Your task to perform on an android device: Search for Italian restaurants on Maps Image 0: 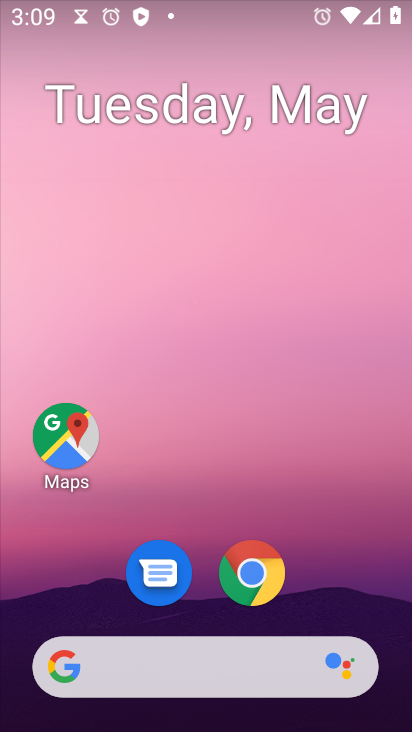
Step 0: drag from (310, 513) to (233, 33)
Your task to perform on an android device: Search for Italian restaurants on Maps Image 1: 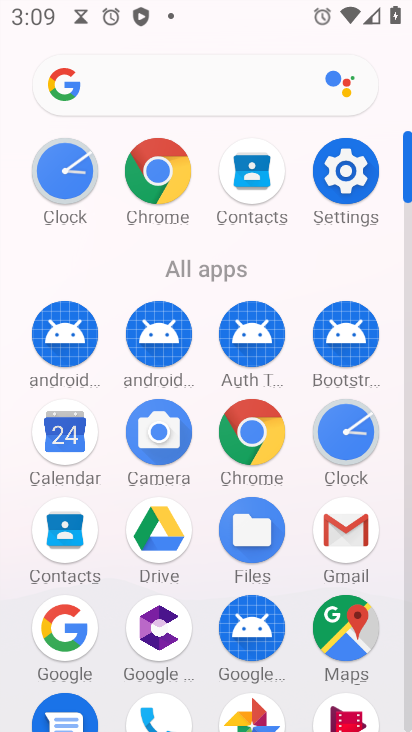
Step 1: drag from (4, 653) to (24, 193)
Your task to perform on an android device: Search for Italian restaurants on Maps Image 2: 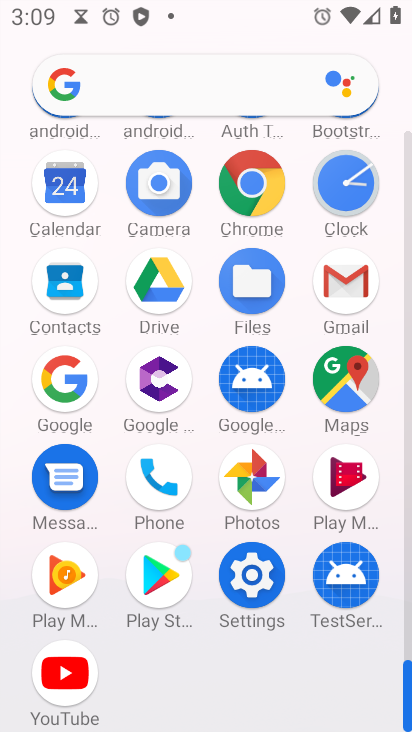
Step 2: click (342, 379)
Your task to perform on an android device: Search for Italian restaurants on Maps Image 3: 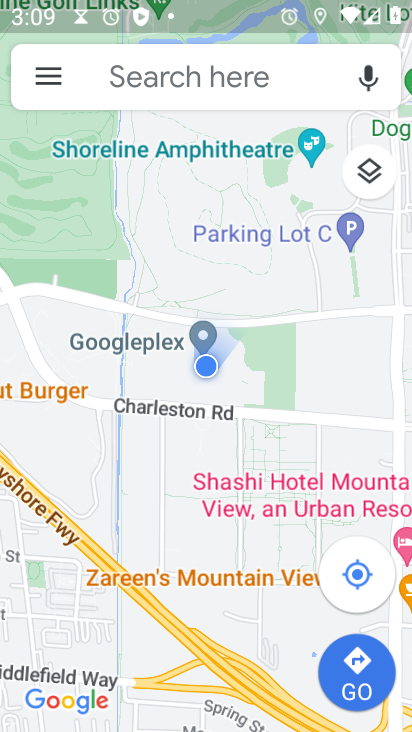
Step 3: click (239, 76)
Your task to perform on an android device: Search for Italian restaurants on Maps Image 4: 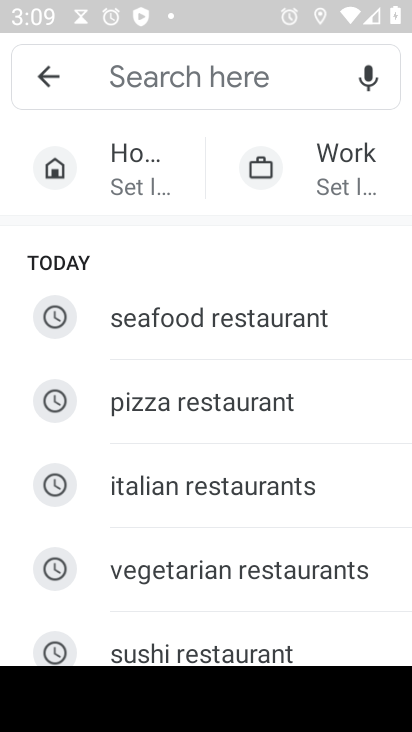
Step 4: click (183, 501)
Your task to perform on an android device: Search for Italian restaurants on Maps Image 5: 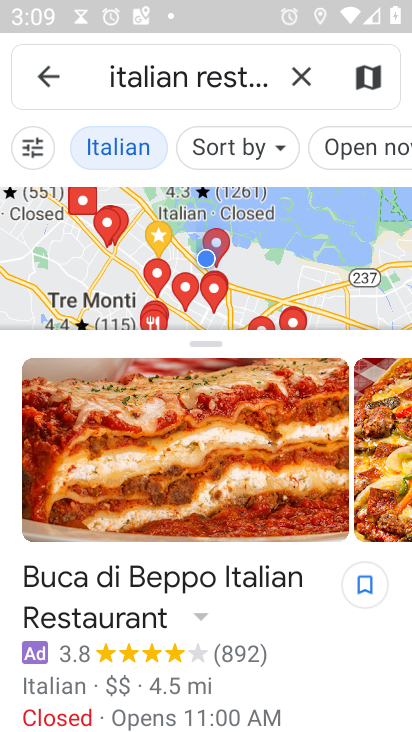
Step 5: task complete